Your task to perform on an android device: check data usage Image 0: 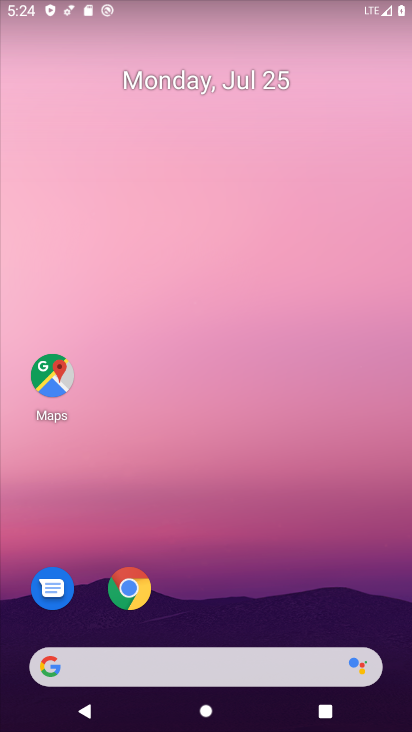
Step 0: drag from (161, 669) to (171, 29)
Your task to perform on an android device: check data usage Image 1: 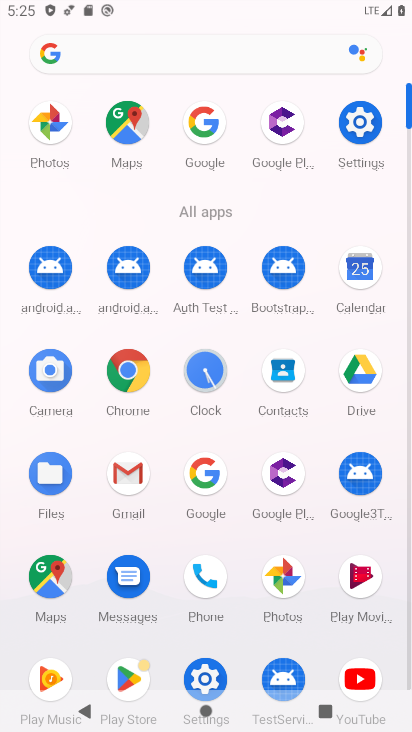
Step 1: click (358, 120)
Your task to perform on an android device: check data usage Image 2: 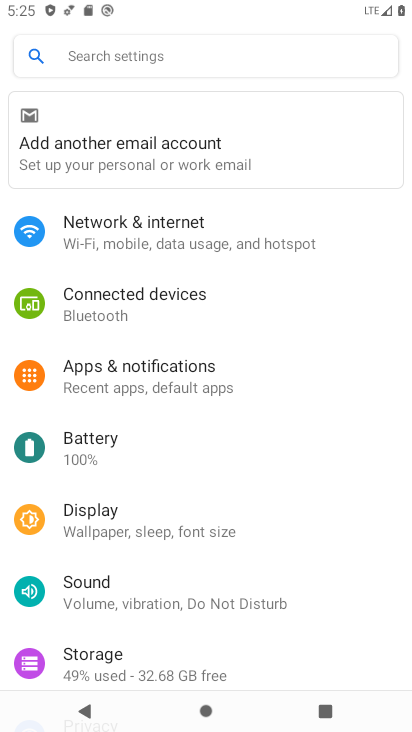
Step 2: click (145, 237)
Your task to perform on an android device: check data usage Image 3: 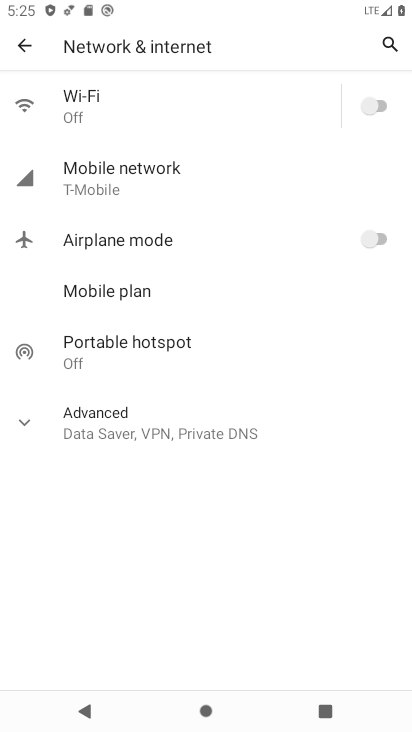
Step 3: click (115, 170)
Your task to perform on an android device: check data usage Image 4: 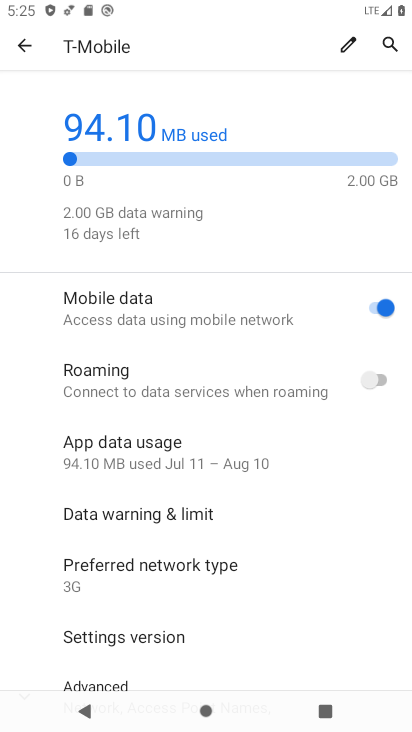
Step 4: task complete